Your task to perform on an android device: make emails show in primary in the gmail app Image 0: 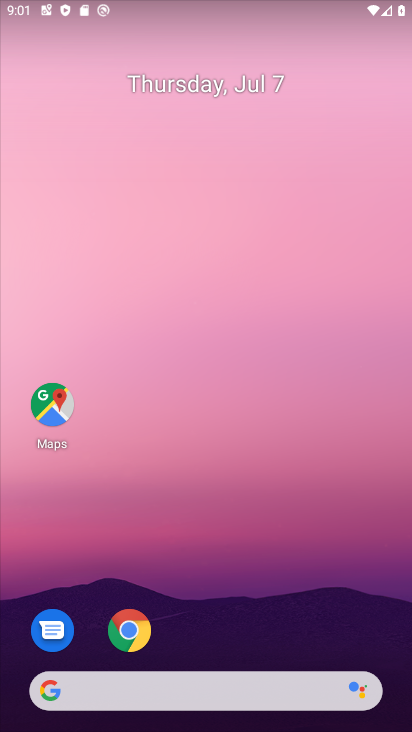
Step 0: drag from (324, 583) to (357, 12)
Your task to perform on an android device: make emails show in primary in the gmail app Image 1: 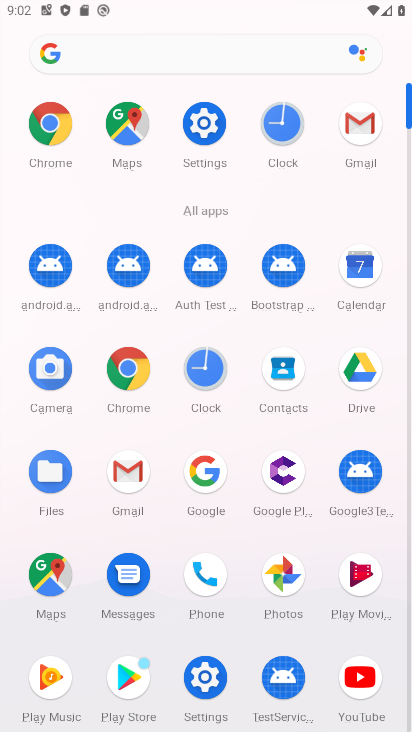
Step 1: click (362, 129)
Your task to perform on an android device: make emails show in primary in the gmail app Image 2: 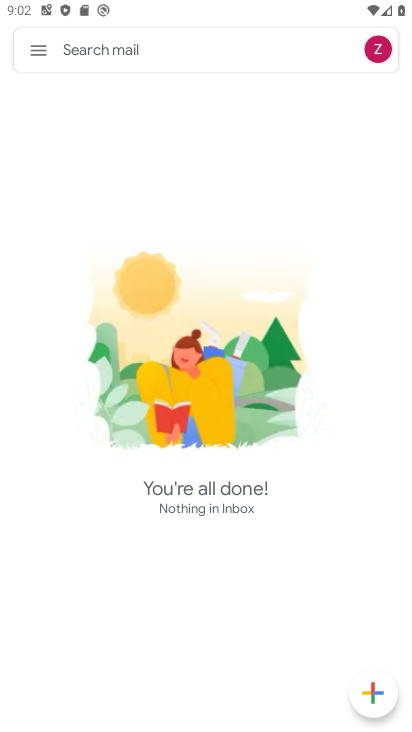
Step 2: click (39, 49)
Your task to perform on an android device: make emails show in primary in the gmail app Image 3: 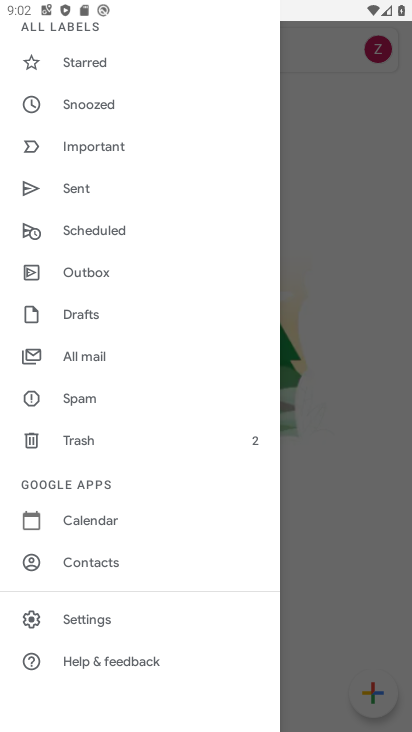
Step 3: click (124, 626)
Your task to perform on an android device: make emails show in primary in the gmail app Image 4: 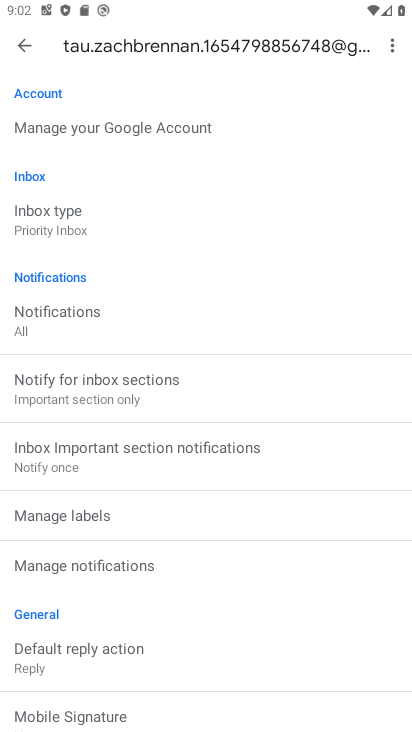
Step 4: click (154, 386)
Your task to perform on an android device: make emails show in primary in the gmail app Image 5: 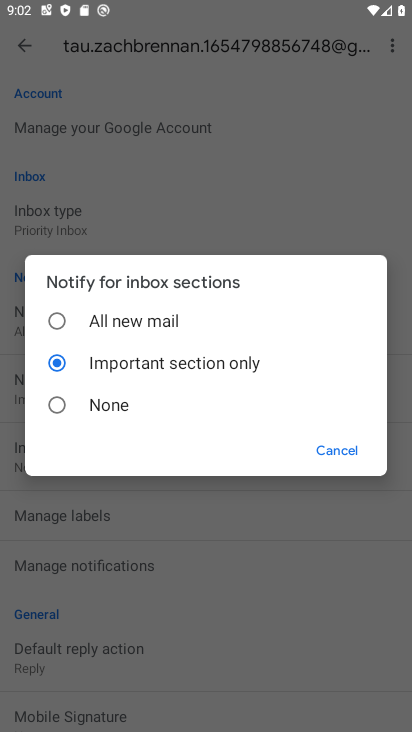
Step 5: click (191, 352)
Your task to perform on an android device: make emails show in primary in the gmail app Image 6: 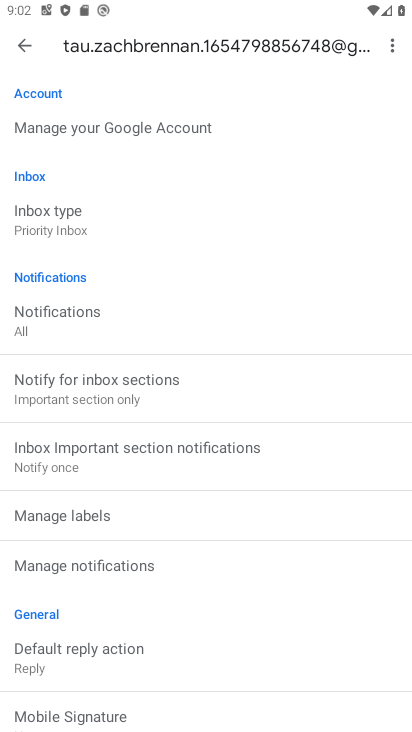
Step 6: task complete